Your task to perform on an android device: Open network settings Image 0: 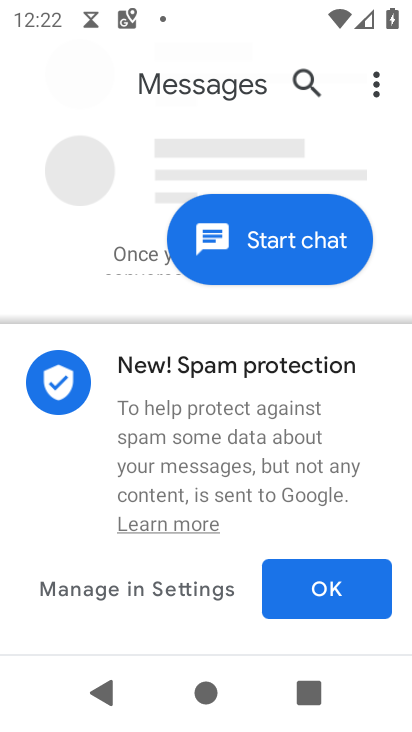
Step 0: press home button
Your task to perform on an android device: Open network settings Image 1: 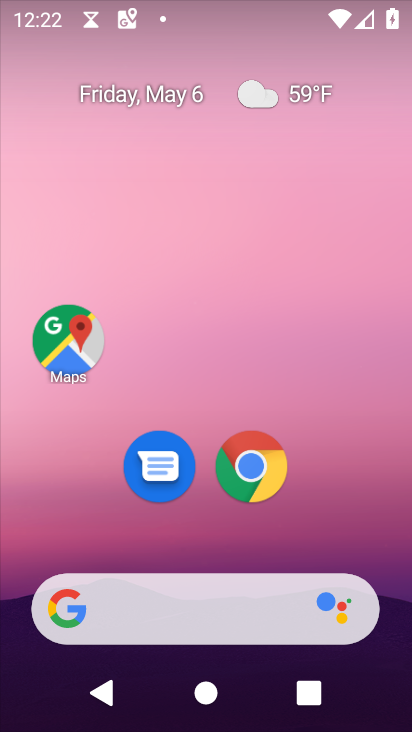
Step 1: drag from (360, 507) to (320, 125)
Your task to perform on an android device: Open network settings Image 2: 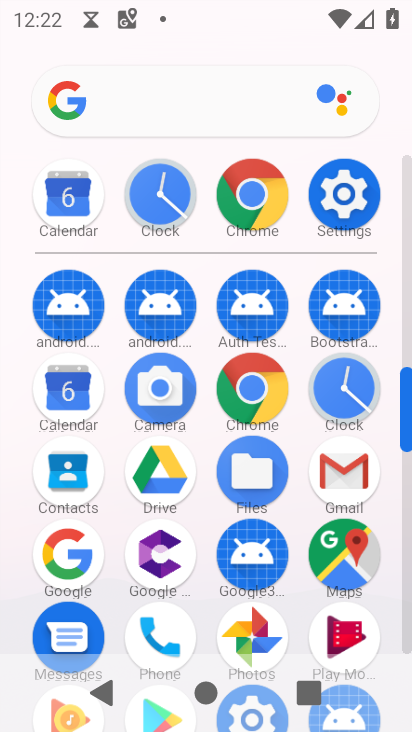
Step 2: click (353, 207)
Your task to perform on an android device: Open network settings Image 3: 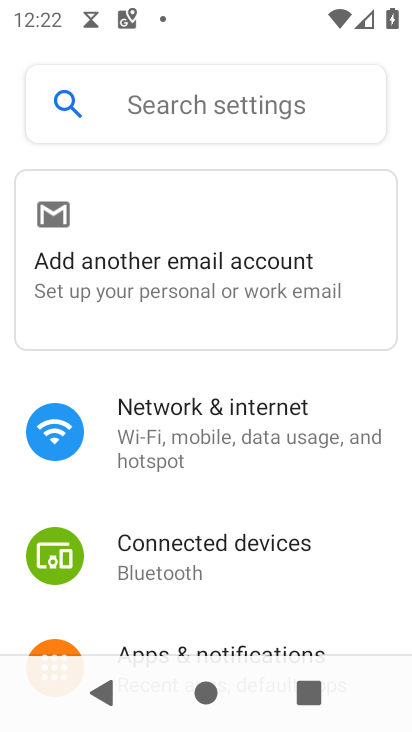
Step 3: click (301, 419)
Your task to perform on an android device: Open network settings Image 4: 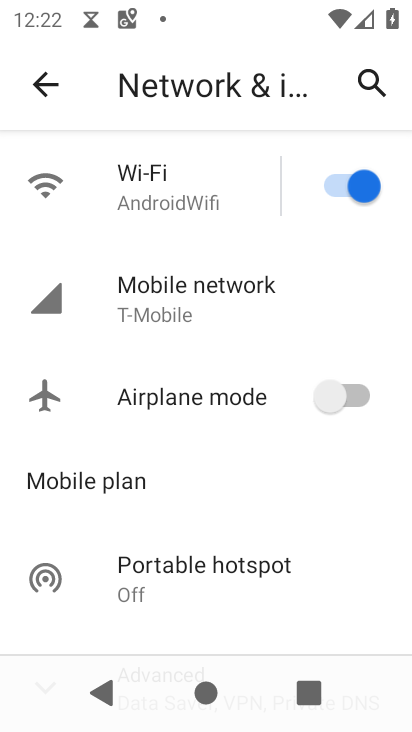
Step 4: task complete